Your task to perform on an android device: Turn on the flashlight Image 0: 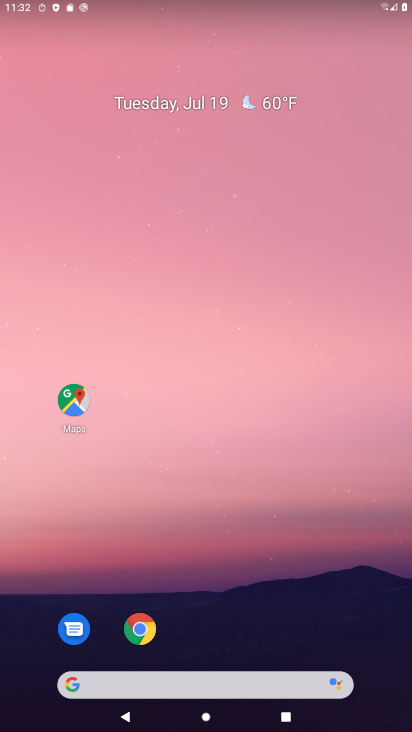
Step 0: drag from (348, 604) to (339, 81)
Your task to perform on an android device: Turn on the flashlight Image 1: 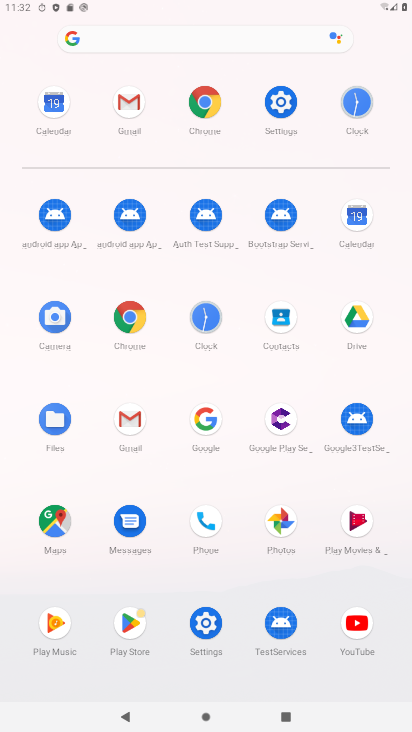
Step 1: click (283, 89)
Your task to perform on an android device: Turn on the flashlight Image 2: 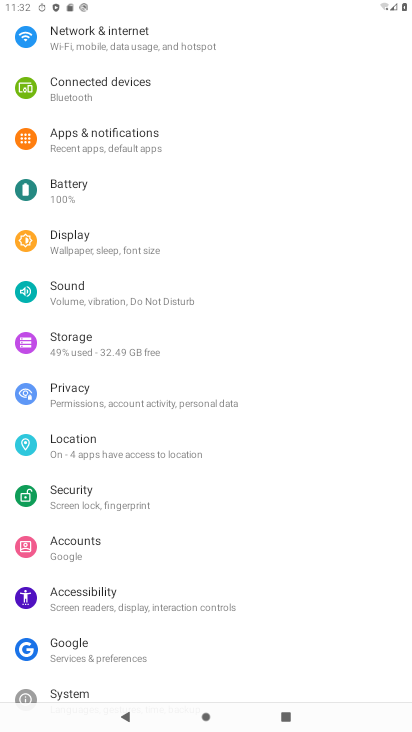
Step 2: task complete